Your task to perform on an android device: Open Wikipedia Image 0: 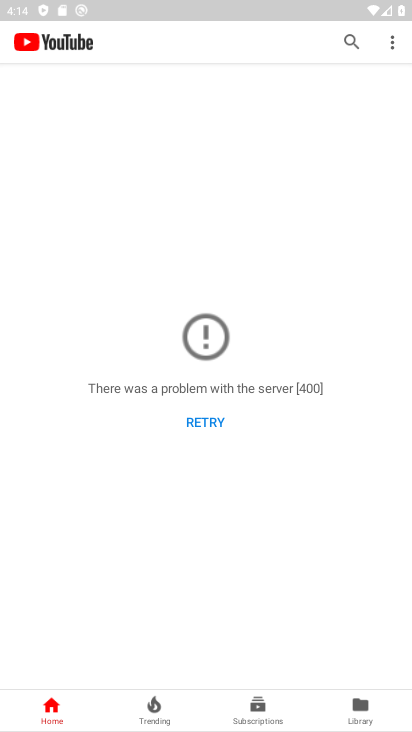
Step 0: press home button
Your task to perform on an android device: Open Wikipedia Image 1: 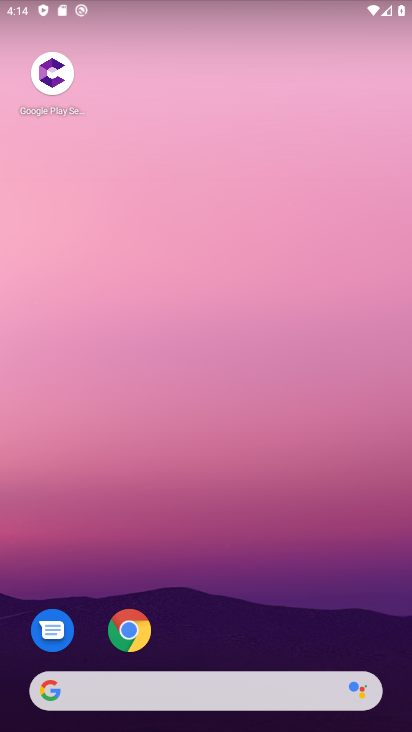
Step 1: click (122, 623)
Your task to perform on an android device: Open Wikipedia Image 2: 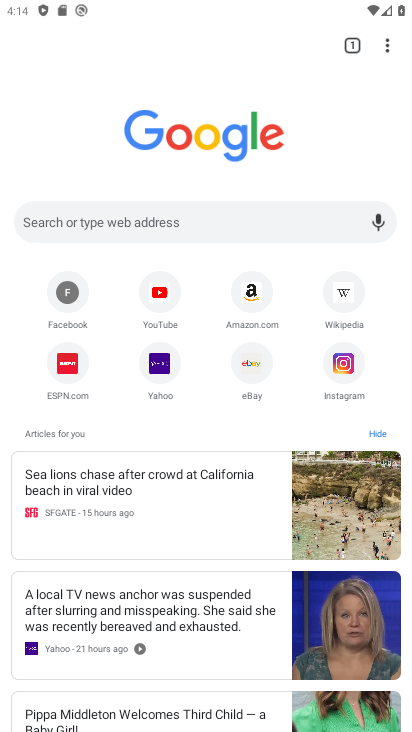
Step 2: click (351, 290)
Your task to perform on an android device: Open Wikipedia Image 3: 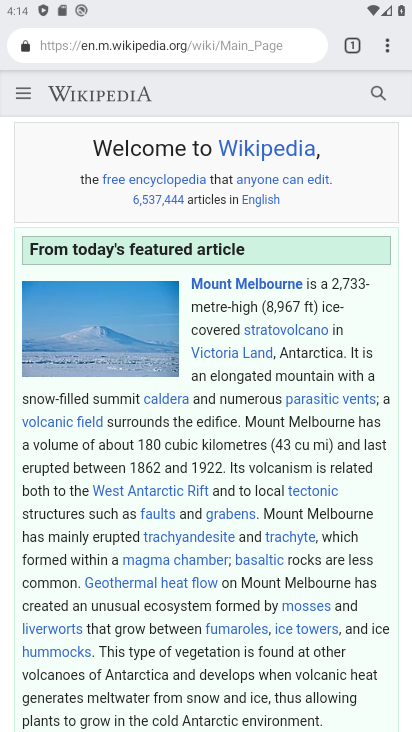
Step 3: task complete